Your task to perform on an android device: Turn on the flashlight Image 0: 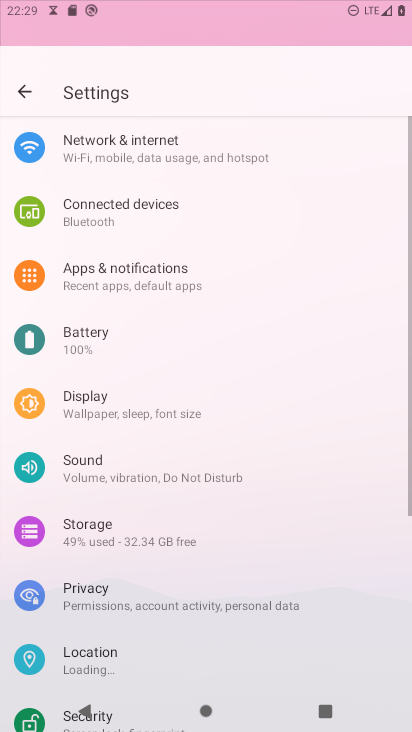
Step 0: press home button
Your task to perform on an android device: Turn on the flashlight Image 1: 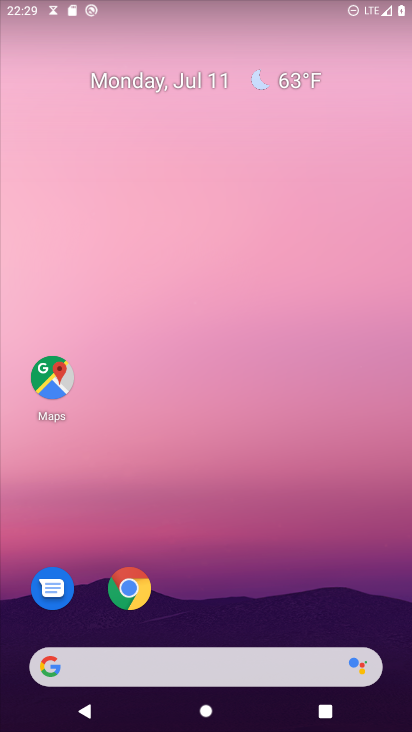
Step 1: task complete